Your task to perform on an android device: Go to ESPN.com Image 0: 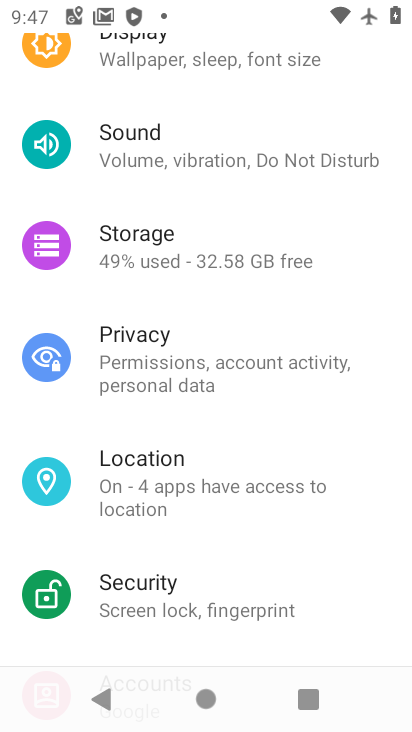
Step 0: task complete